Your task to perform on an android device: stop showing notifications on the lock screen Image 0: 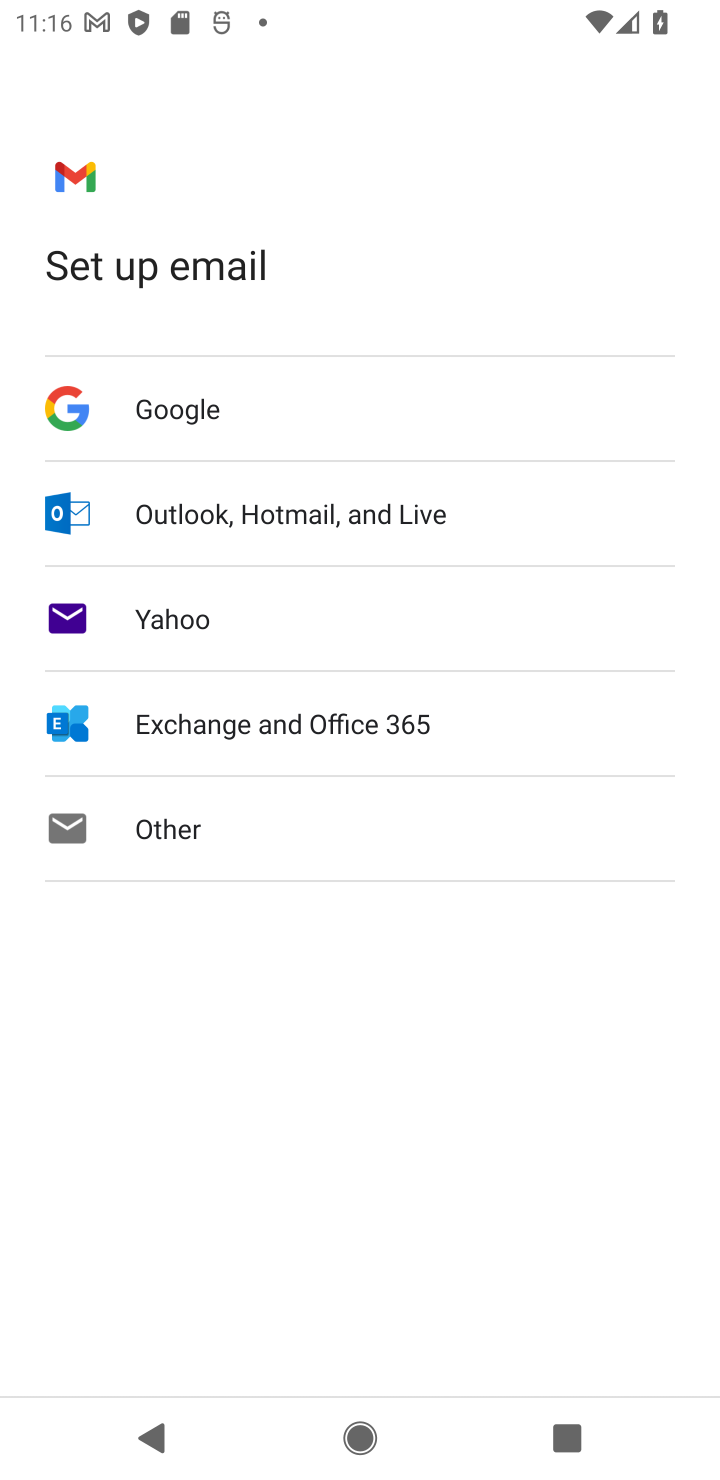
Step 0: press home button
Your task to perform on an android device: stop showing notifications on the lock screen Image 1: 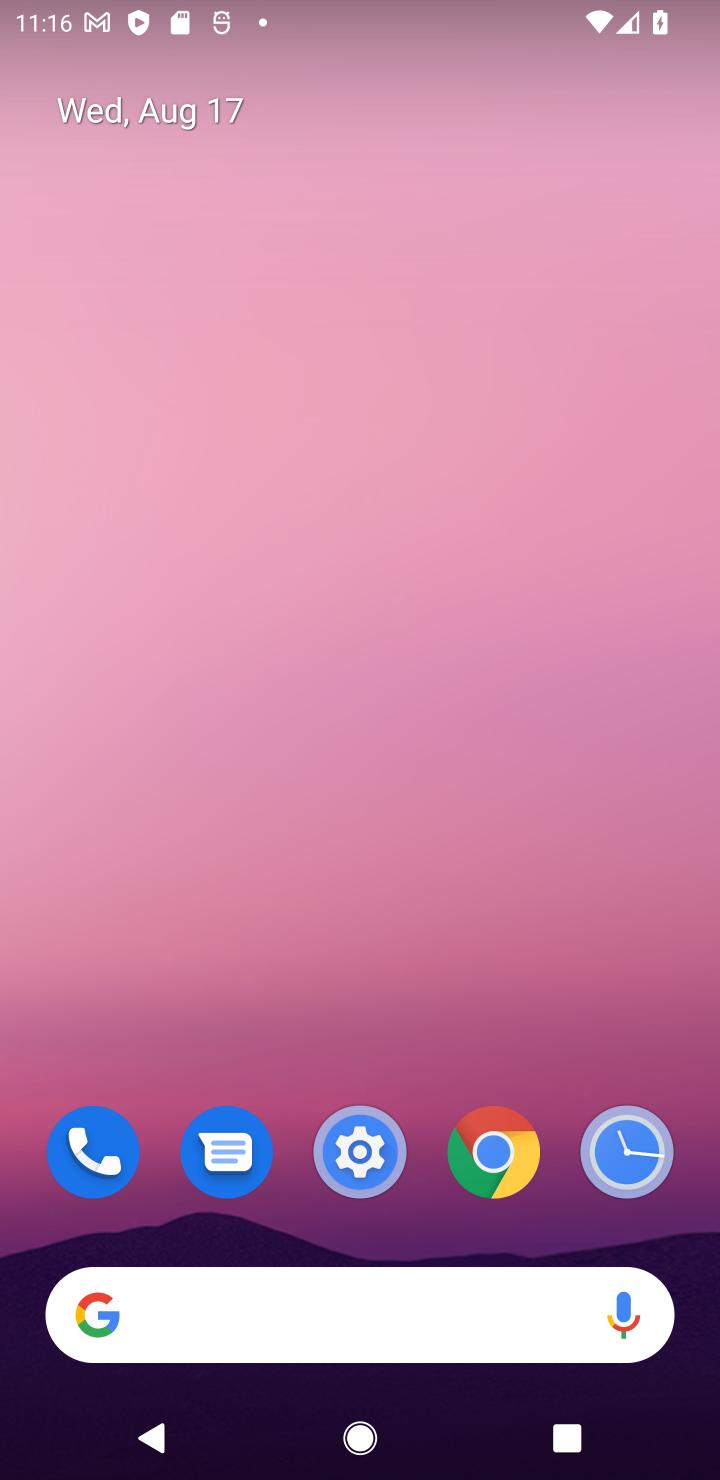
Step 1: drag from (682, 1270) to (303, 29)
Your task to perform on an android device: stop showing notifications on the lock screen Image 2: 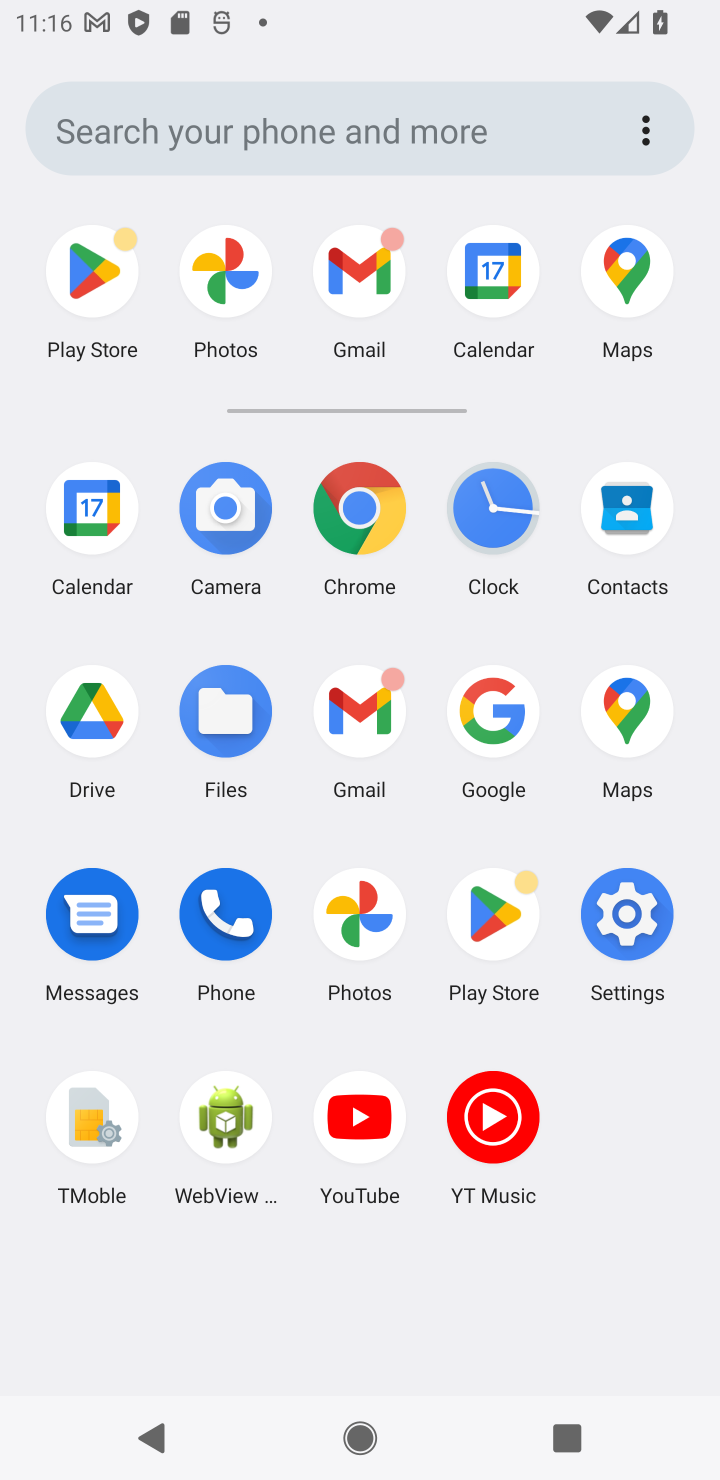
Step 2: click (652, 921)
Your task to perform on an android device: stop showing notifications on the lock screen Image 3: 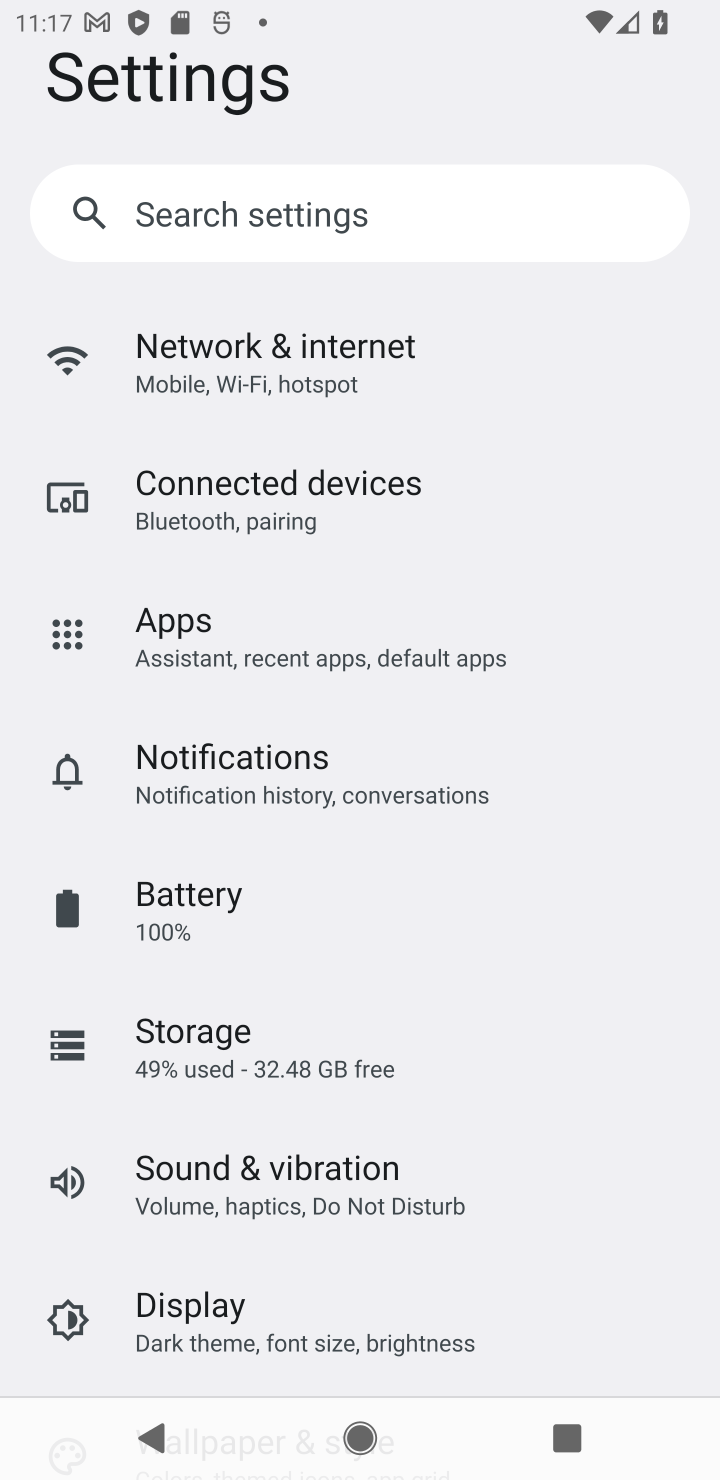
Step 3: click (266, 773)
Your task to perform on an android device: stop showing notifications on the lock screen Image 4: 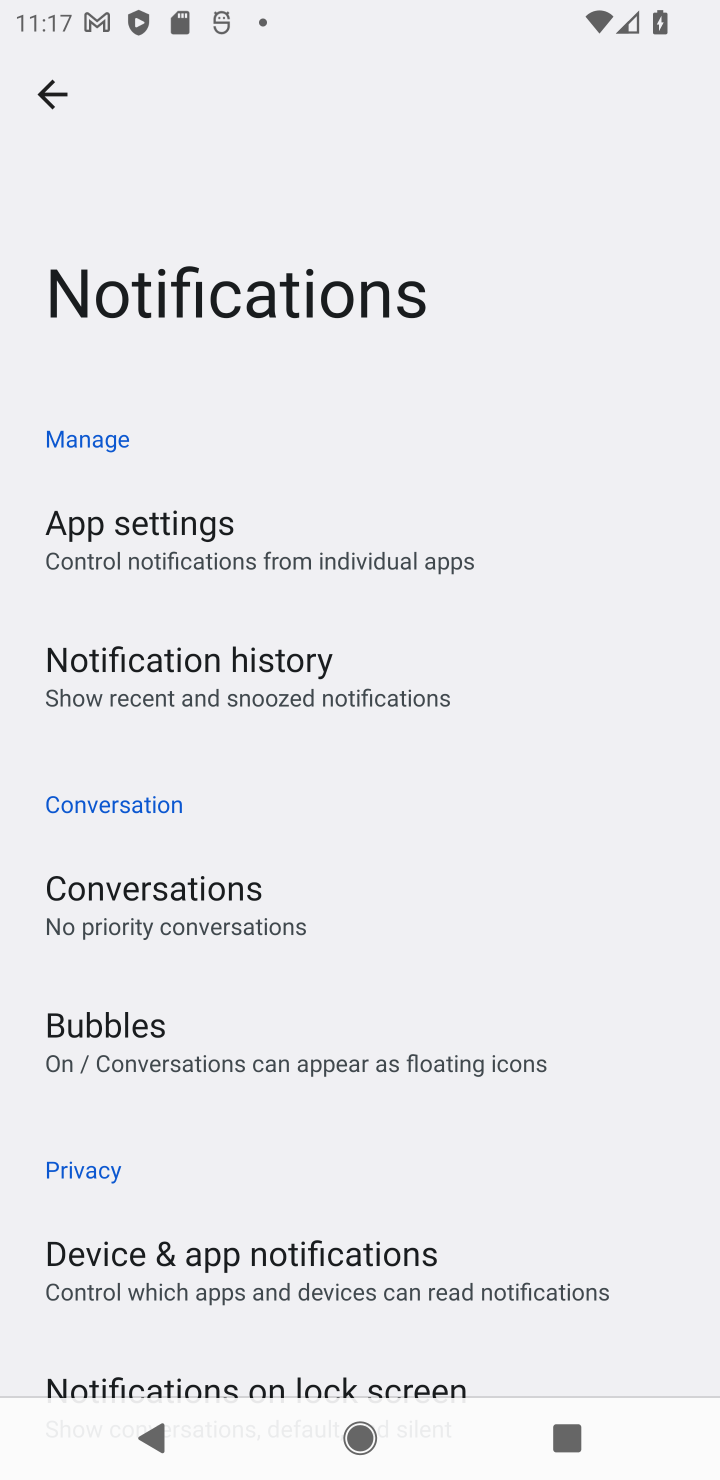
Step 4: drag from (376, 1109) to (284, 317)
Your task to perform on an android device: stop showing notifications on the lock screen Image 5: 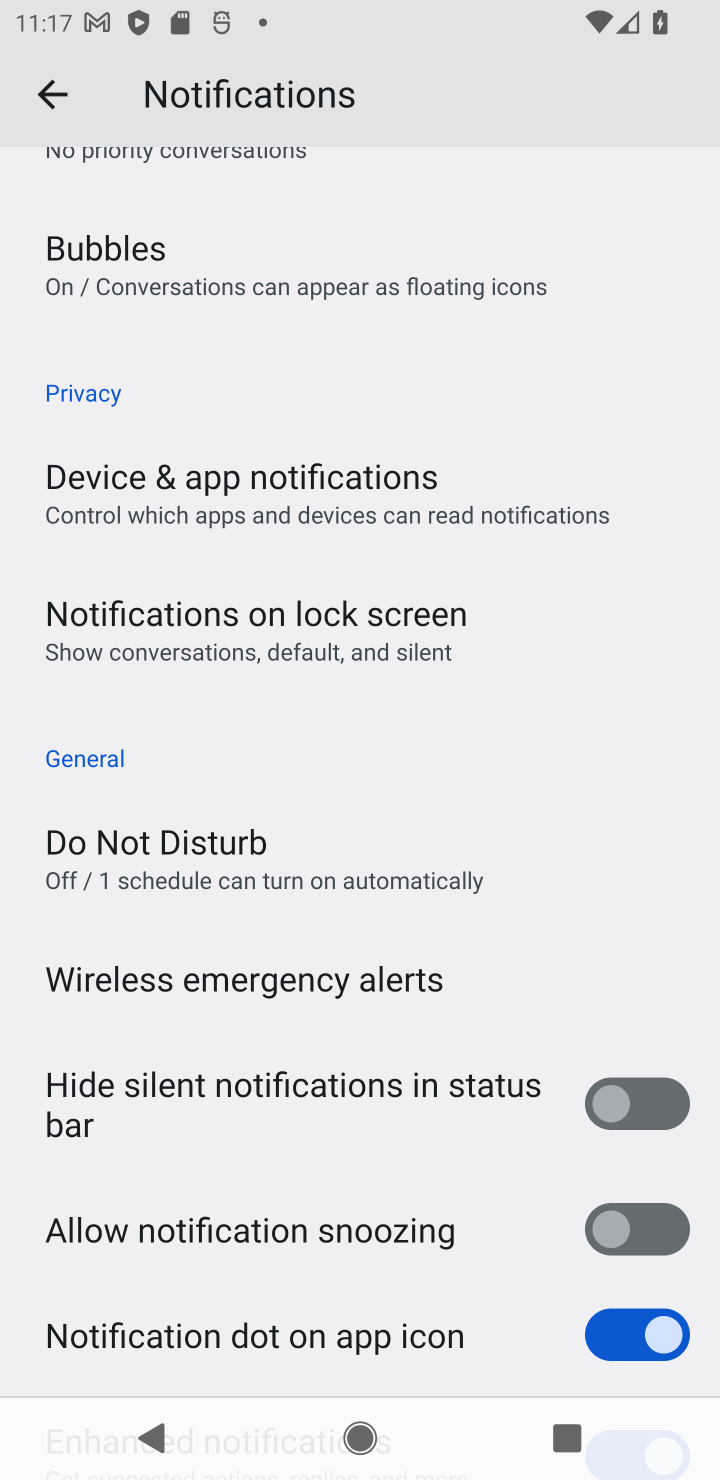
Step 5: click (250, 644)
Your task to perform on an android device: stop showing notifications on the lock screen Image 6: 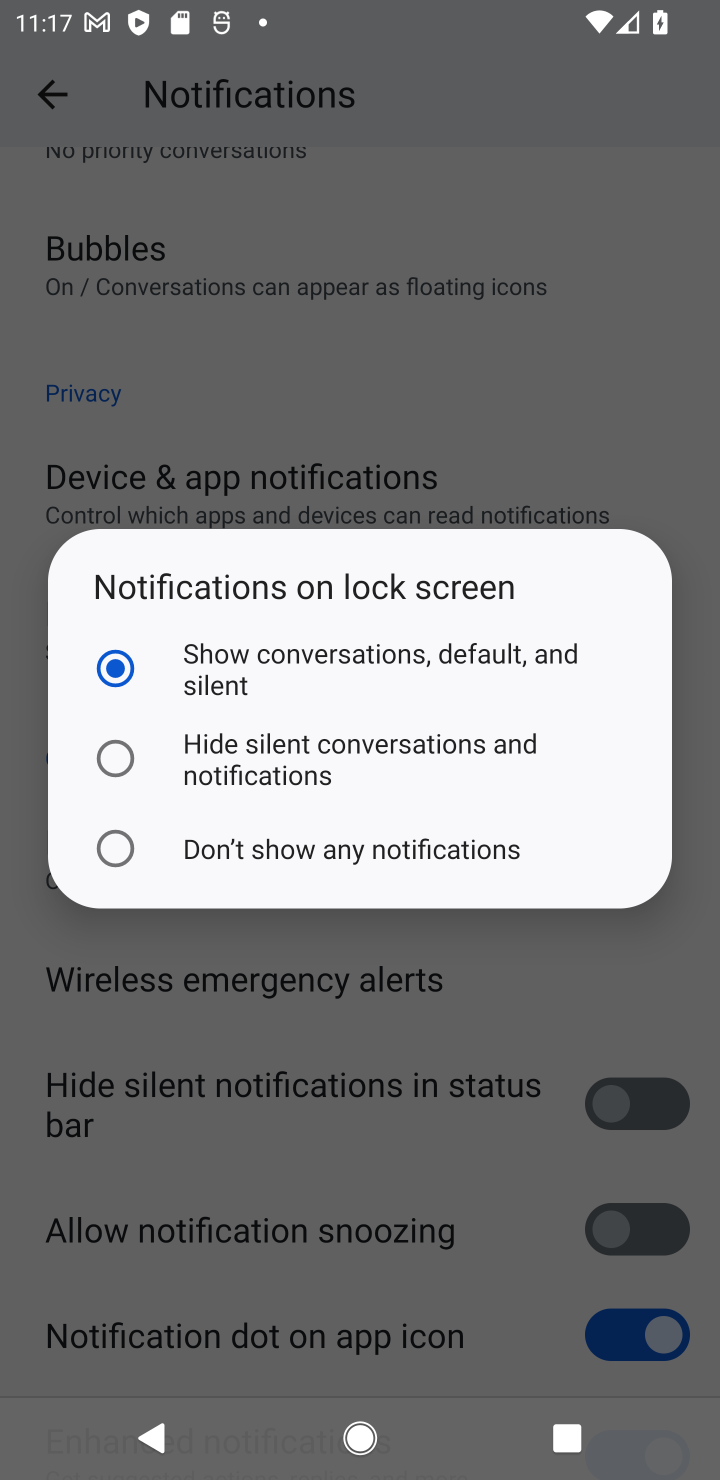
Step 6: click (98, 861)
Your task to perform on an android device: stop showing notifications on the lock screen Image 7: 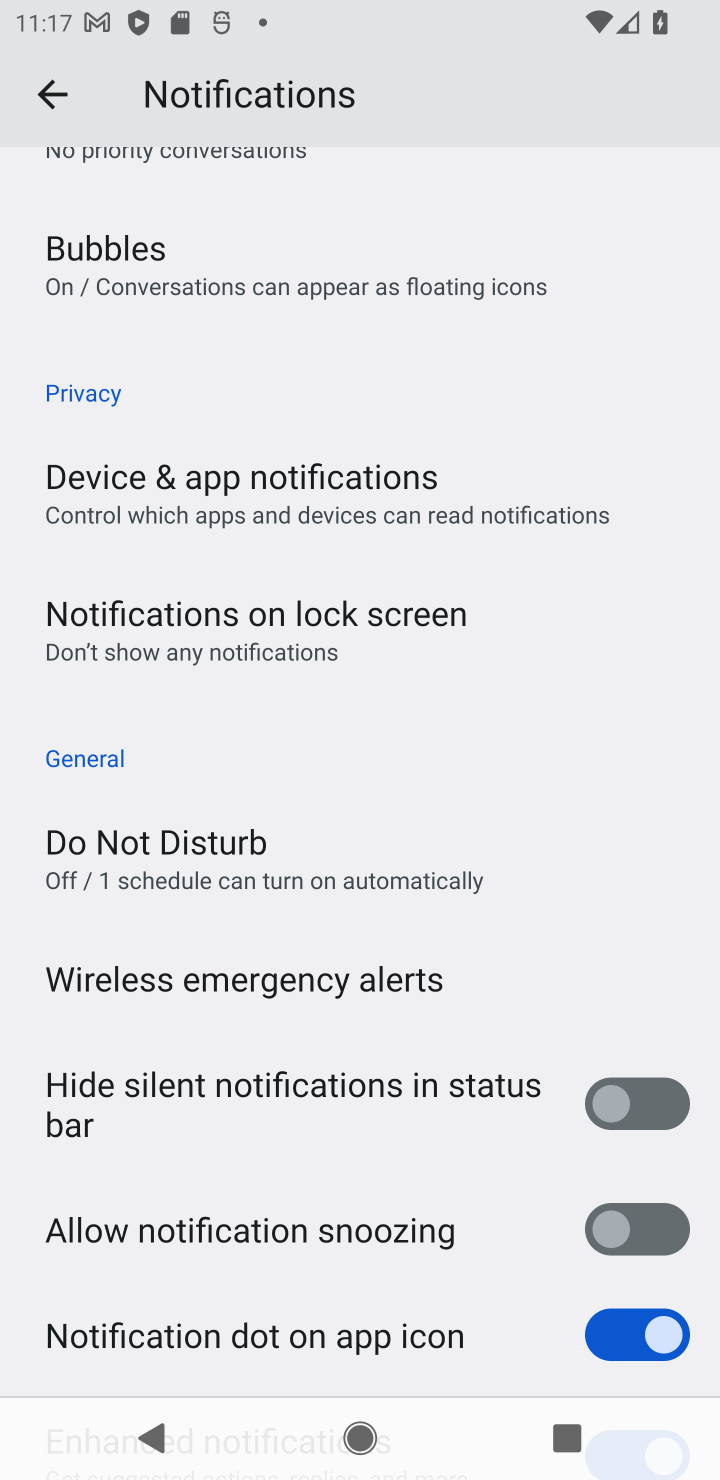
Step 7: task complete